Your task to perform on an android device: Open accessibility settings Image 0: 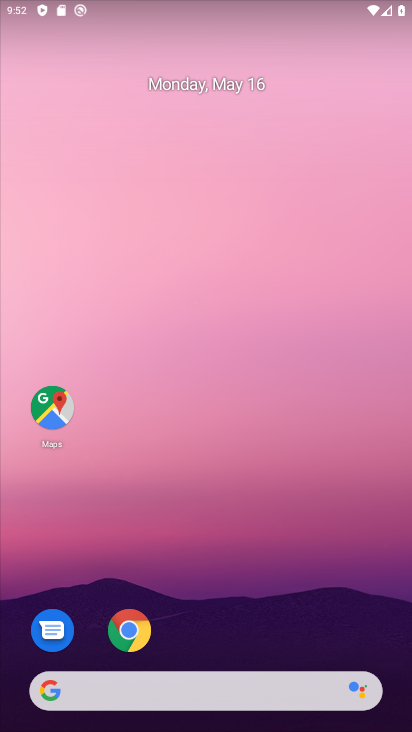
Step 0: drag from (273, 561) to (278, 0)
Your task to perform on an android device: Open accessibility settings Image 1: 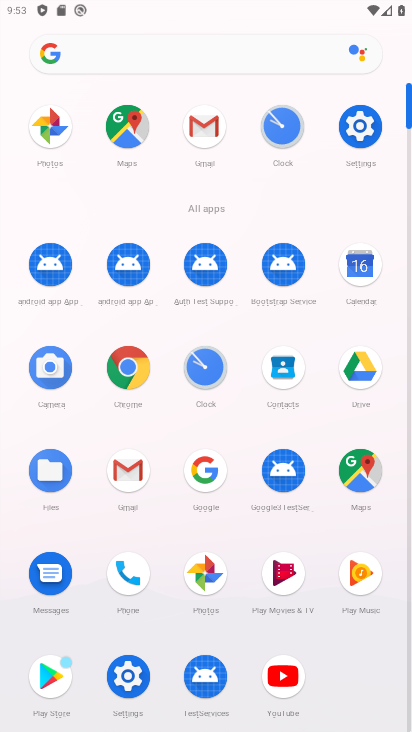
Step 1: click (136, 696)
Your task to perform on an android device: Open accessibility settings Image 2: 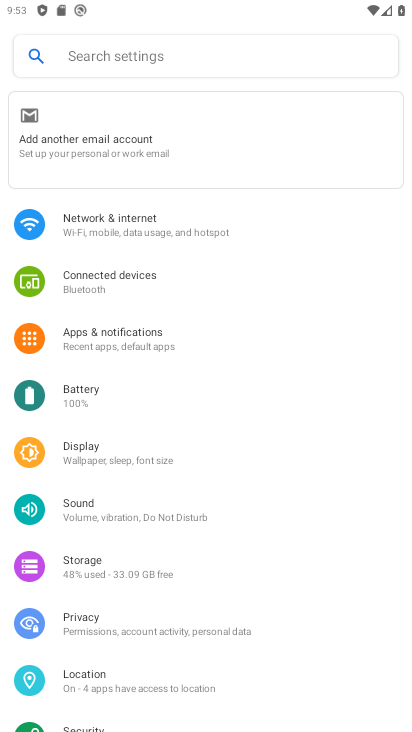
Step 2: drag from (170, 576) to (234, 317)
Your task to perform on an android device: Open accessibility settings Image 3: 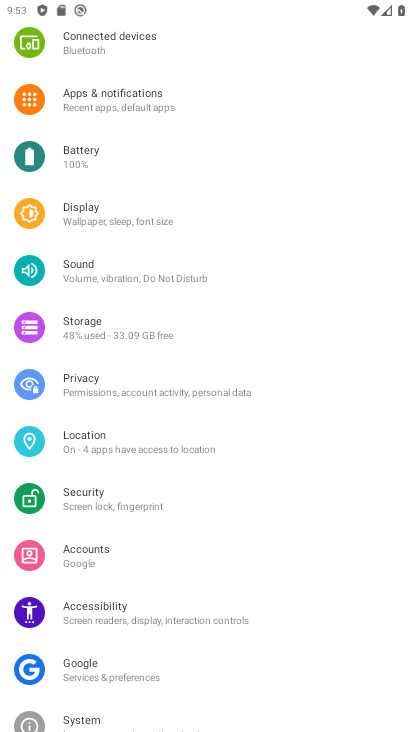
Step 3: click (79, 606)
Your task to perform on an android device: Open accessibility settings Image 4: 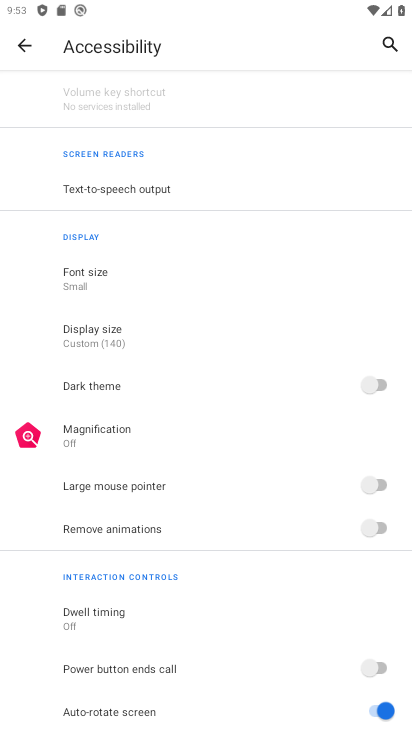
Step 4: task complete